Your task to perform on an android device: change your default location settings in chrome Image 0: 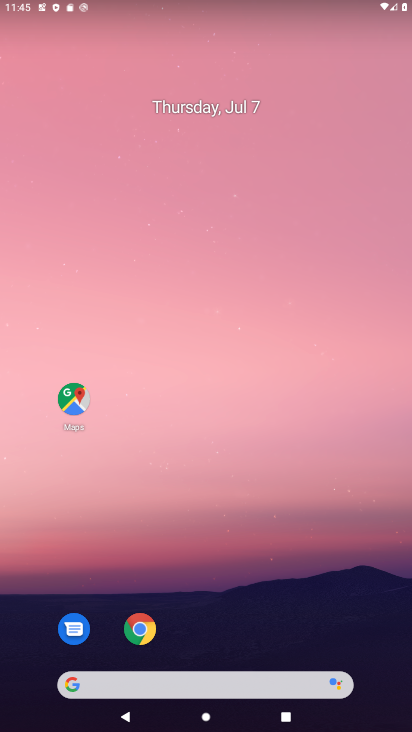
Step 0: click (141, 633)
Your task to perform on an android device: change your default location settings in chrome Image 1: 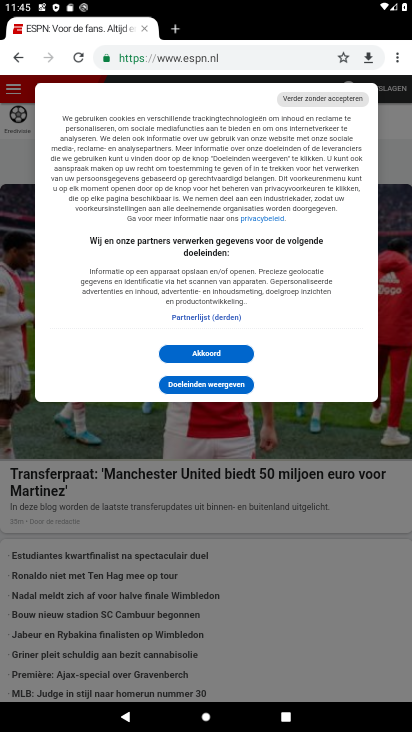
Step 1: click (395, 63)
Your task to perform on an android device: change your default location settings in chrome Image 2: 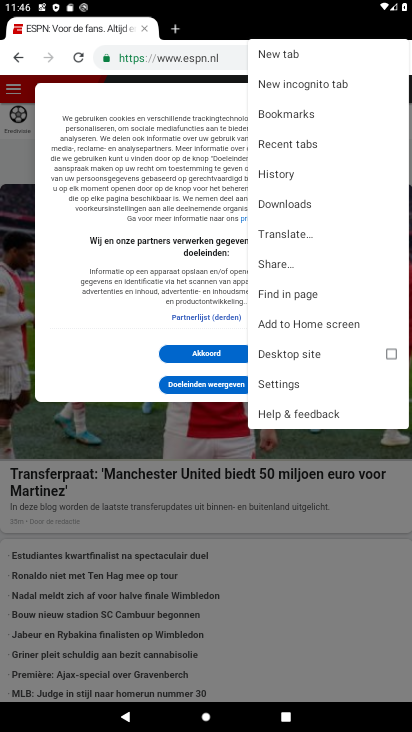
Step 2: click (289, 385)
Your task to perform on an android device: change your default location settings in chrome Image 3: 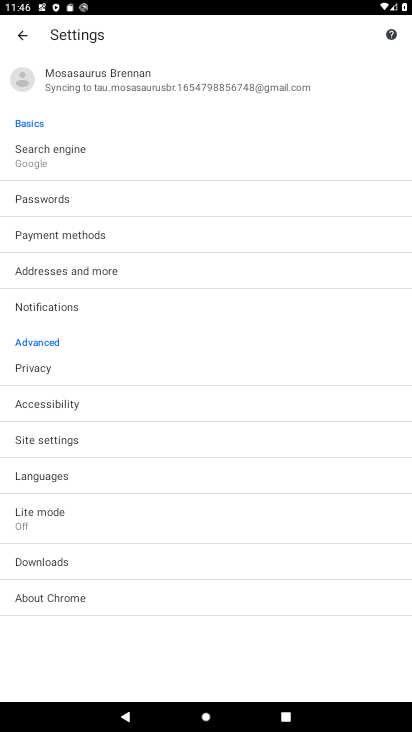
Step 3: click (39, 443)
Your task to perform on an android device: change your default location settings in chrome Image 4: 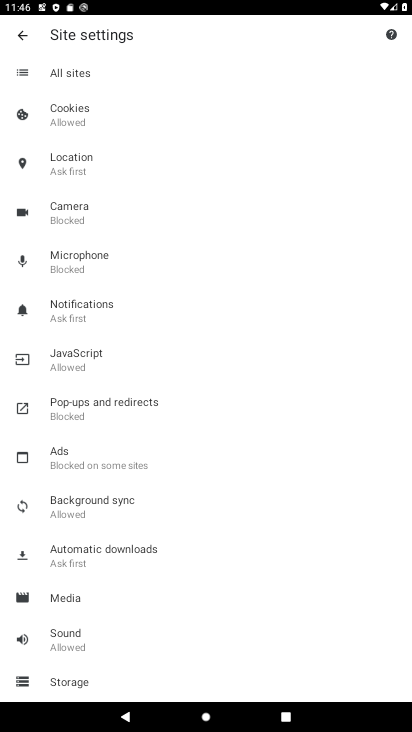
Step 4: click (77, 153)
Your task to perform on an android device: change your default location settings in chrome Image 5: 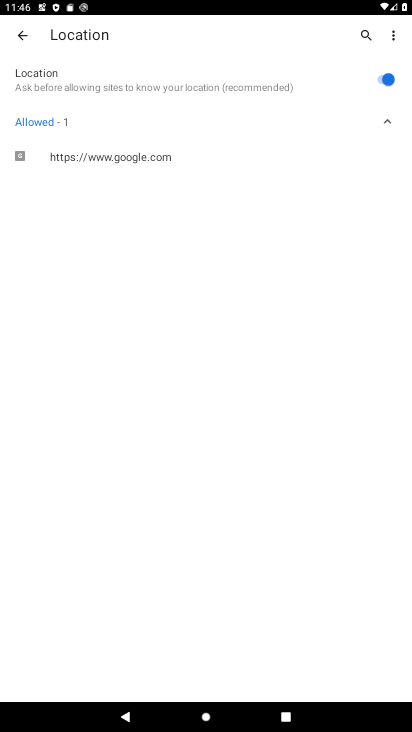
Step 5: click (380, 80)
Your task to perform on an android device: change your default location settings in chrome Image 6: 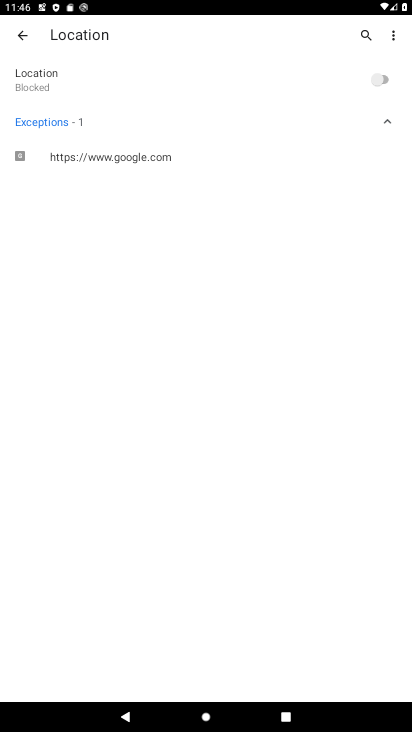
Step 6: task complete